Your task to perform on an android device: turn off notifications settings in the gmail app Image 0: 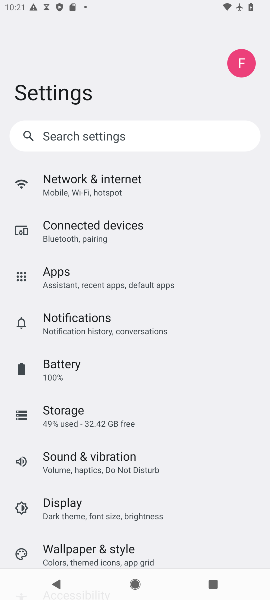
Step 0: press home button
Your task to perform on an android device: turn off notifications settings in the gmail app Image 1: 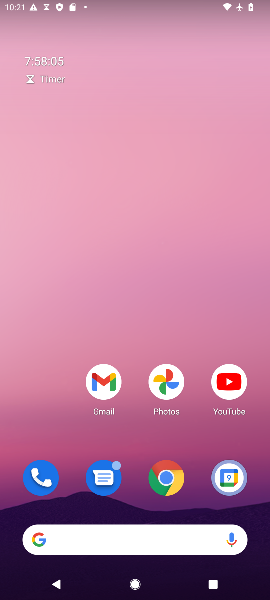
Step 1: click (98, 371)
Your task to perform on an android device: turn off notifications settings in the gmail app Image 2: 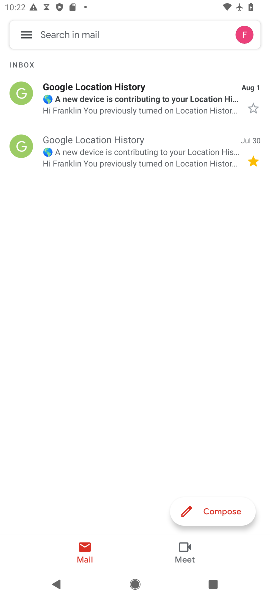
Step 2: click (25, 38)
Your task to perform on an android device: turn off notifications settings in the gmail app Image 3: 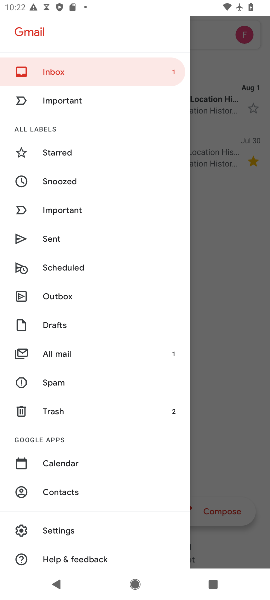
Step 3: click (76, 533)
Your task to perform on an android device: turn off notifications settings in the gmail app Image 4: 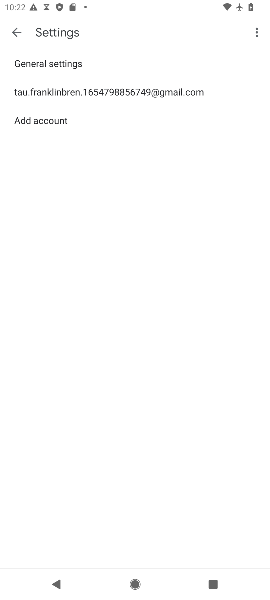
Step 4: click (100, 96)
Your task to perform on an android device: turn off notifications settings in the gmail app Image 5: 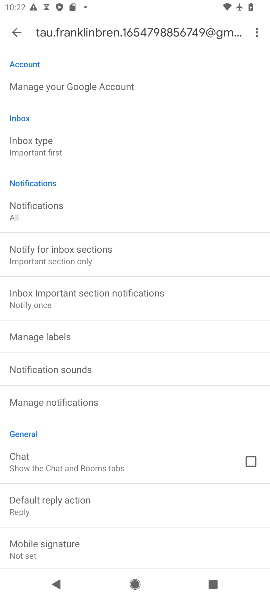
Step 5: drag from (122, 536) to (114, 235)
Your task to perform on an android device: turn off notifications settings in the gmail app Image 6: 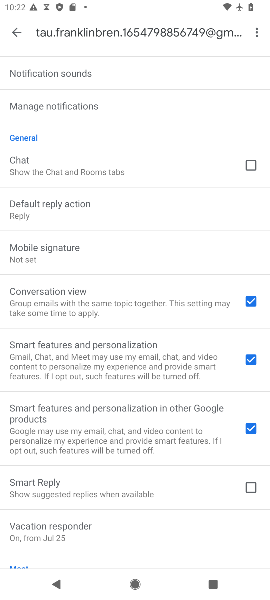
Step 6: click (88, 105)
Your task to perform on an android device: turn off notifications settings in the gmail app Image 7: 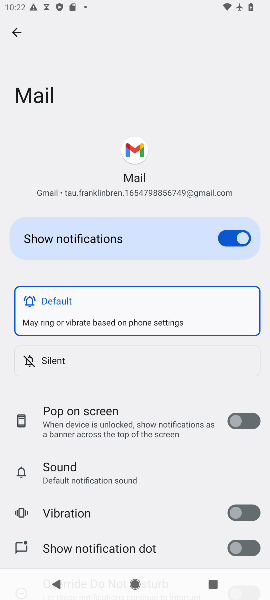
Step 7: task complete